Your task to perform on an android device: turn off notifications settings in the gmail app Image 0: 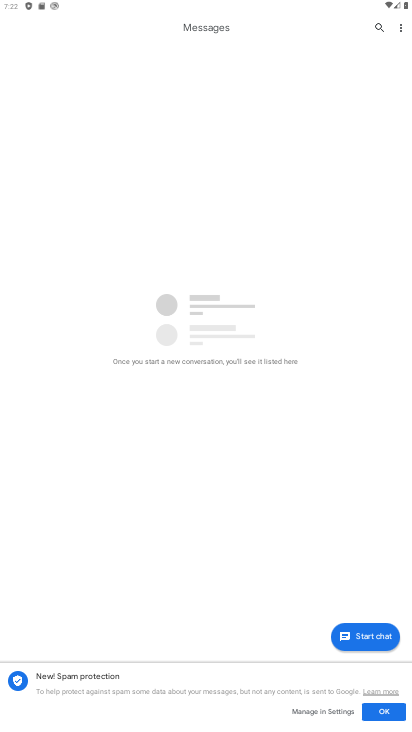
Step 0: press home button
Your task to perform on an android device: turn off notifications settings in the gmail app Image 1: 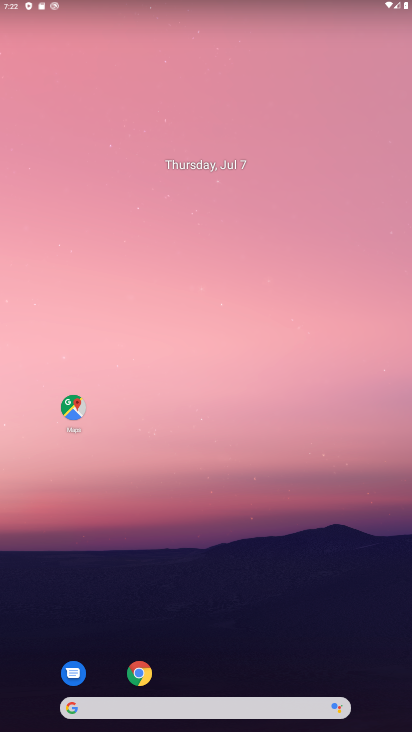
Step 1: drag from (215, 611) to (208, 50)
Your task to perform on an android device: turn off notifications settings in the gmail app Image 2: 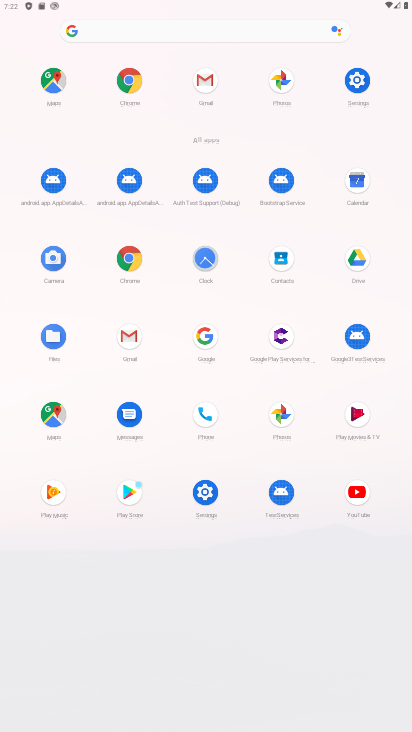
Step 2: click (205, 79)
Your task to perform on an android device: turn off notifications settings in the gmail app Image 3: 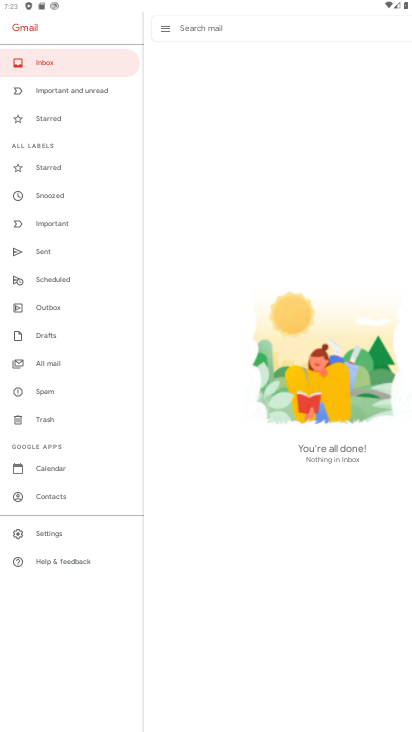
Step 3: click (51, 535)
Your task to perform on an android device: turn off notifications settings in the gmail app Image 4: 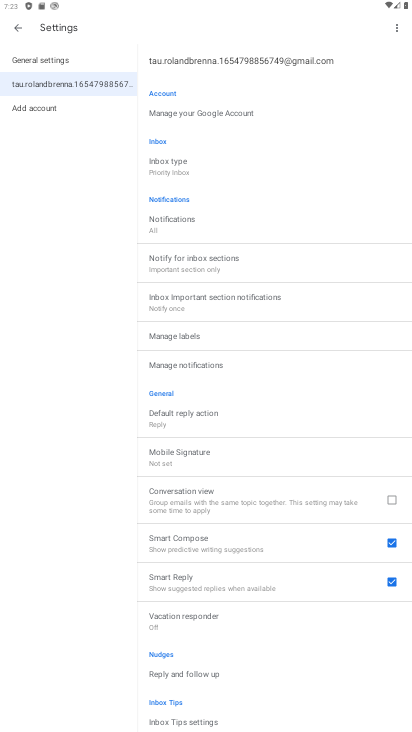
Step 4: click (183, 364)
Your task to perform on an android device: turn off notifications settings in the gmail app Image 5: 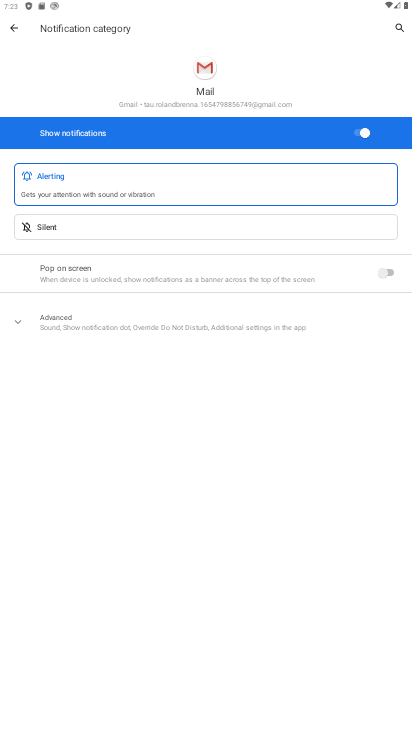
Step 5: click (363, 136)
Your task to perform on an android device: turn off notifications settings in the gmail app Image 6: 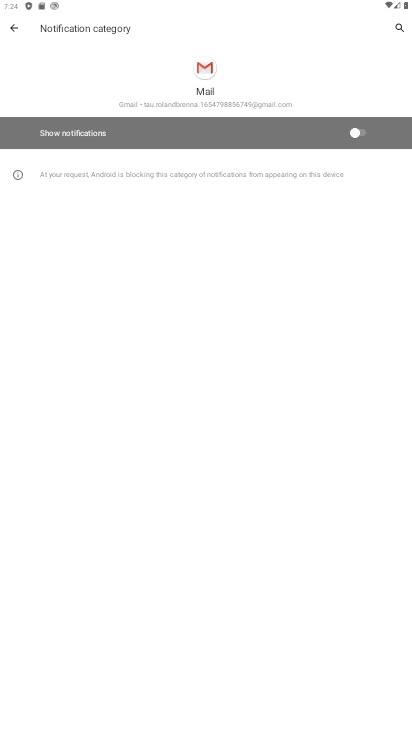
Step 6: task complete